Your task to perform on an android device: Open settings Image 0: 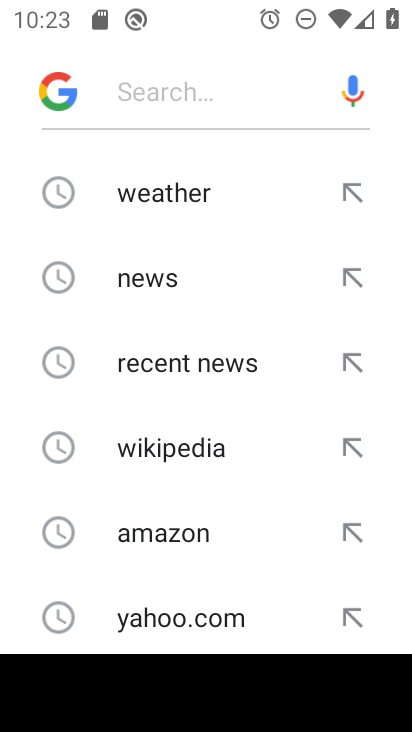
Step 0: press home button
Your task to perform on an android device: Open settings Image 1: 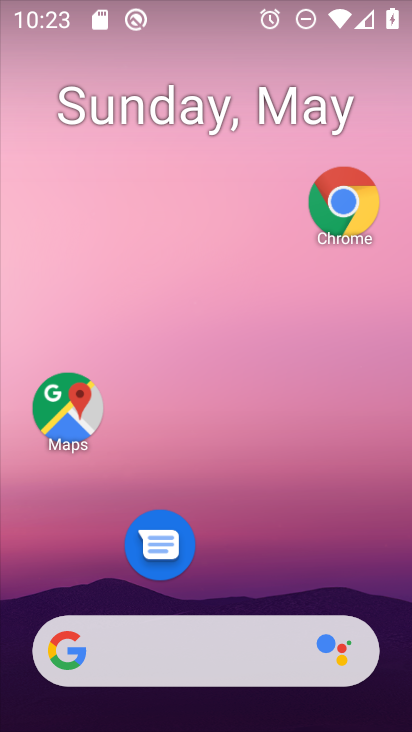
Step 1: drag from (226, 588) to (222, 36)
Your task to perform on an android device: Open settings Image 2: 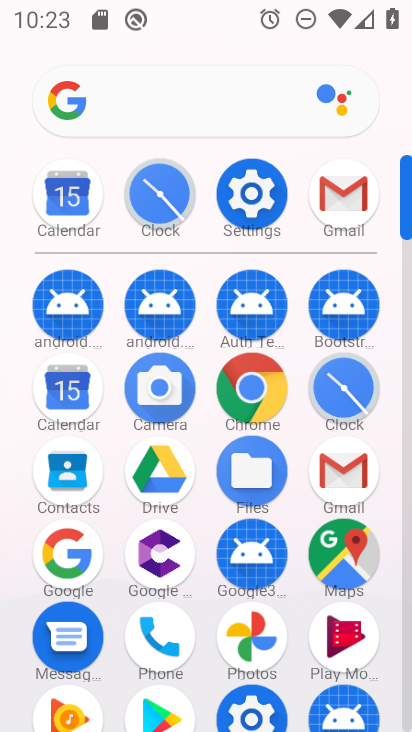
Step 2: click (258, 201)
Your task to perform on an android device: Open settings Image 3: 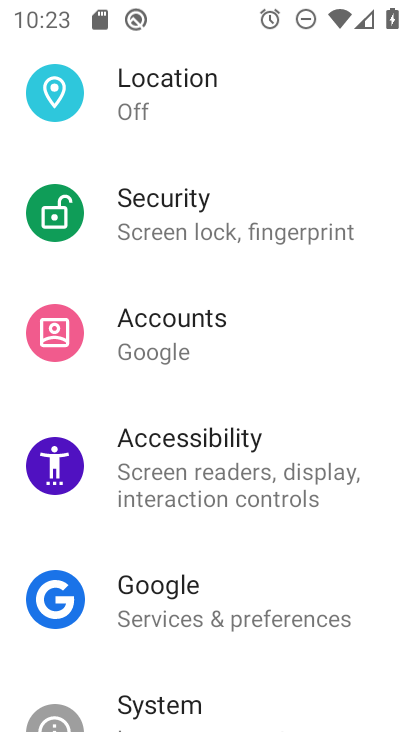
Step 3: task complete